Your task to perform on an android device: toggle sleep mode Image 0: 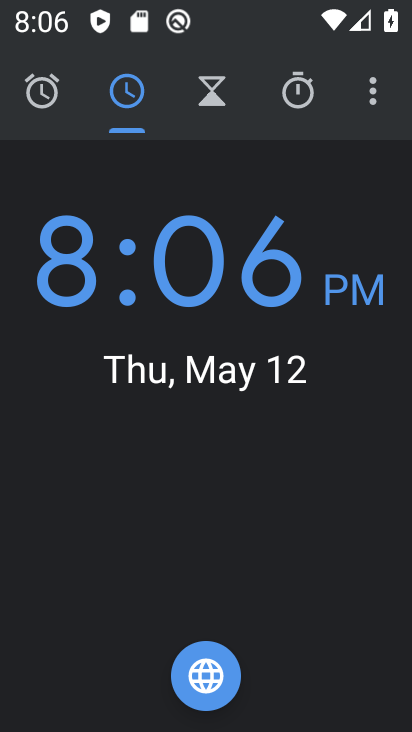
Step 0: press home button
Your task to perform on an android device: toggle sleep mode Image 1: 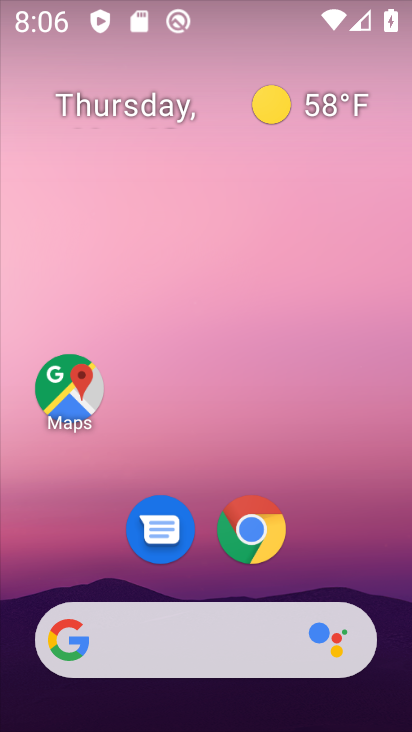
Step 1: drag from (216, 571) to (297, 94)
Your task to perform on an android device: toggle sleep mode Image 2: 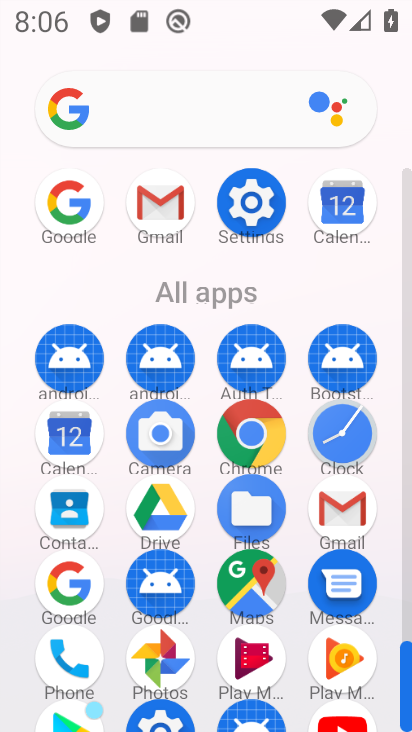
Step 2: click (273, 189)
Your task to perform on an android device: toggle sleep mode Image 3: 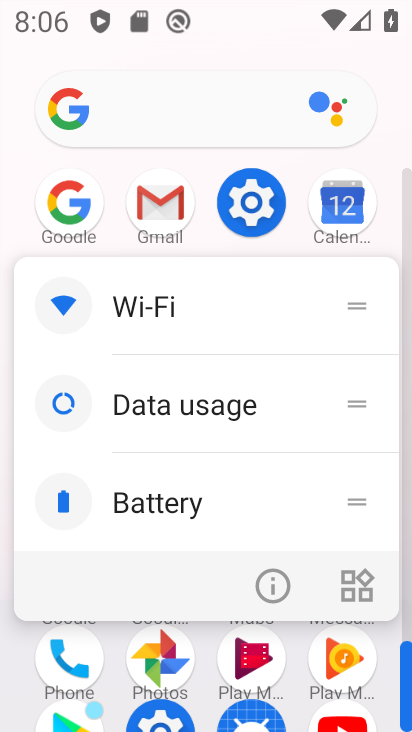
Step 3: click (252, 192)
Your task to perform on an android device: toggle sleep mode Image 4: 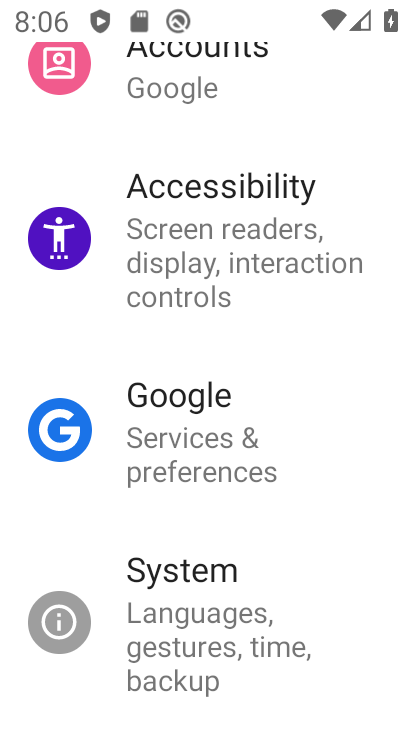
Step 4: drag from (236, 211) to (303, 725)
Your task to perform on an android device: toggle sleep mode Image 5: 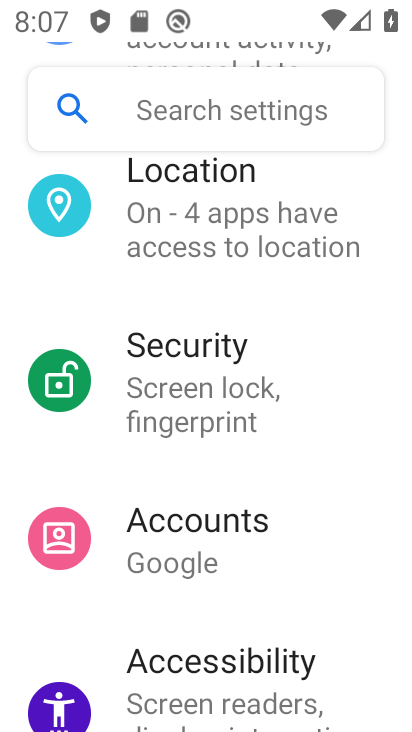
Step 5: drag from (142, 258) to (273, 695)
Your task to perform on an android device: toggle sleep mode Image 6: 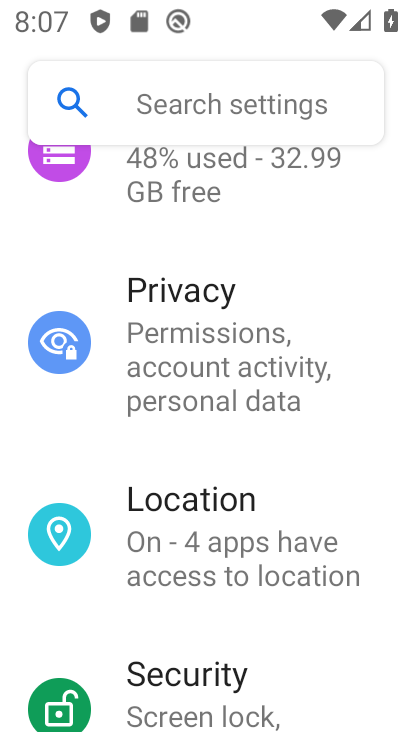
Step 6: drag from (181, 282) to (310, 667)
Your task to perform on an android device: toggle sleep mode Image 7: 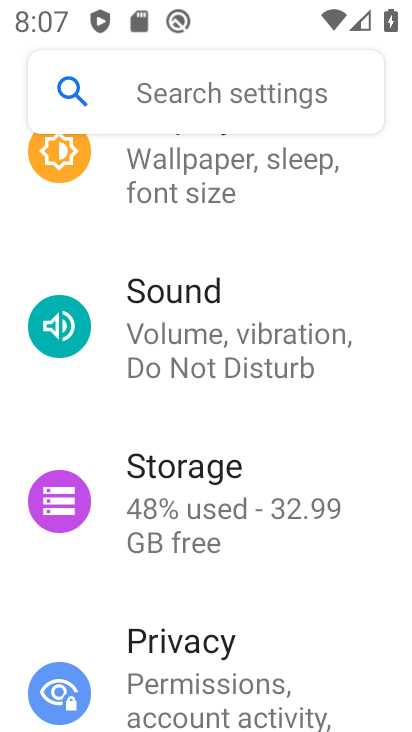
Step 7: drag from (151, 273) to (212, 537)
Your task to perform on an android device: toggle sleep mode Image 8: 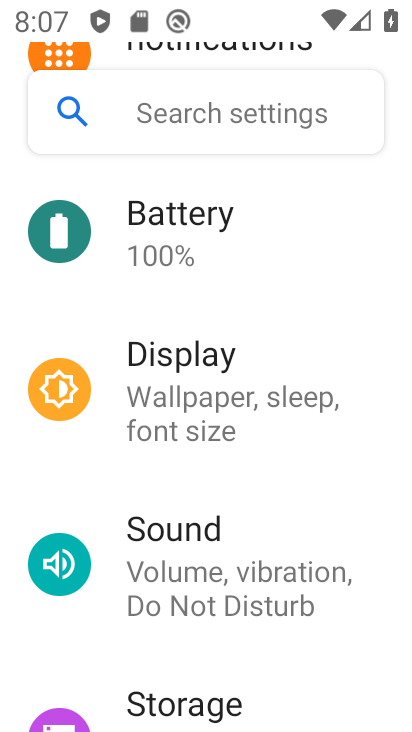
Step 8: click (160, 367)
Your task to perform on an android device: toggle sleep mode Image 9: 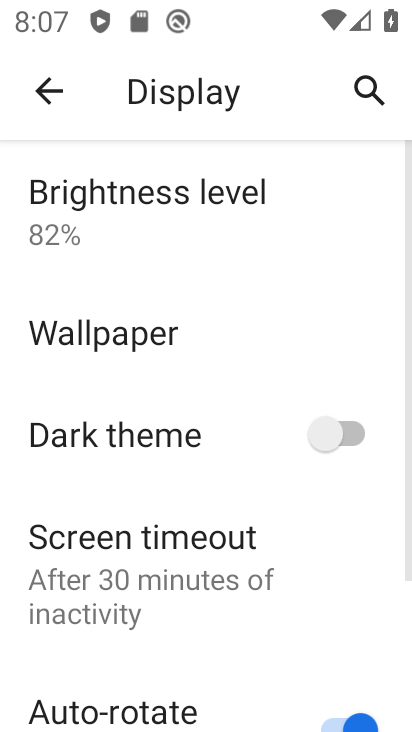
Step 9: click (220, 597)
Your task to perform on an android device: toggle sleep mode Image 10: 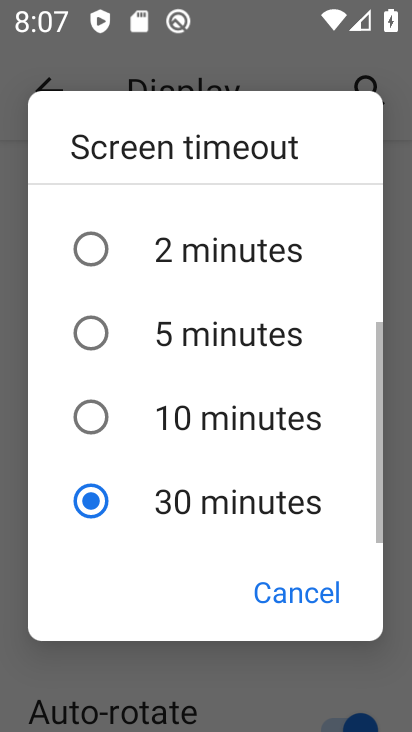
Step 10: click (88, 417)
Your task to perform on an android device: toggle sleep mode Image 11: 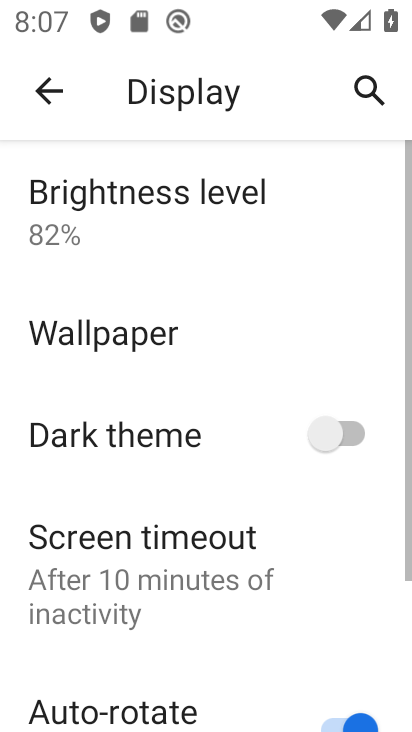
Step 11: task complete